Your task to perform on an android device: turn off data saver in the chrome app Image 0: 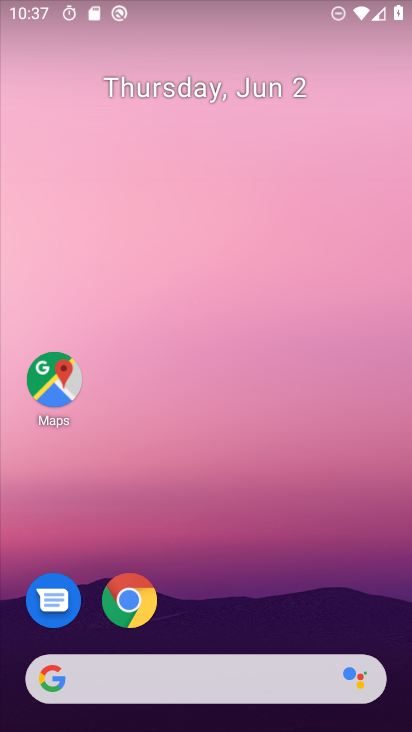
Step 0: click (135, 599)
Your task to perform on an android device: turn off data saver in the chrome app Image 1: 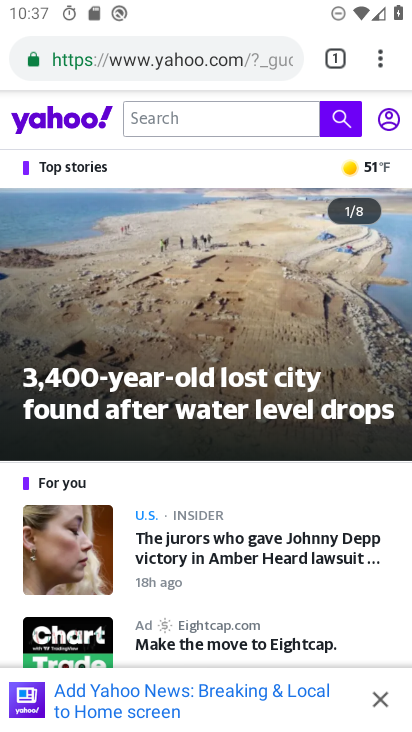
Step 1: click (372, 63)
Your task to perform on an android device: turn off data saver in the chrome app Image 2: 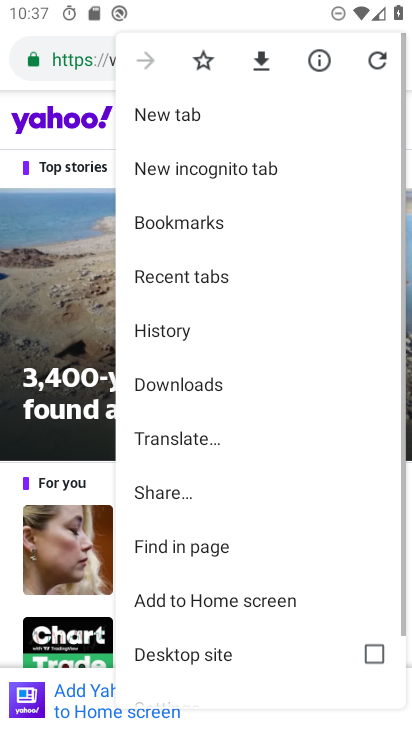
Step 2: drag from (206, 645) to (212, 240)
Your task to perform on an android device: turn off data saver in the chrome app Image 3: 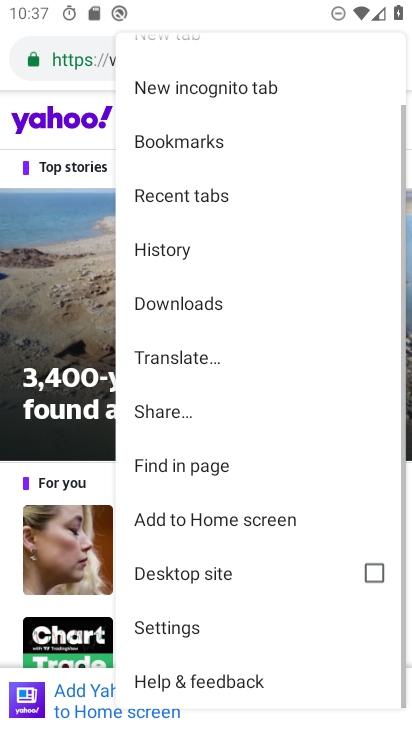
Step 3: click (199, 625)
Your task to perform on an android device: turn off data saver in the chrome app Image 4: 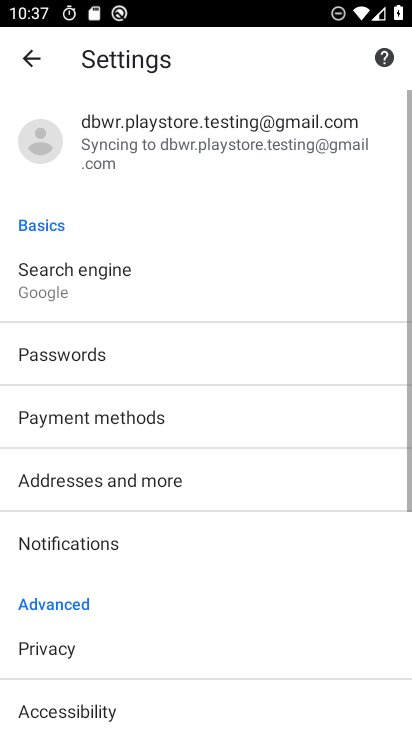
Step 4: drag from (225, 610) to (230, 248)
Your task to perform on an android device: turn off data saver in the chrome app Image 5: 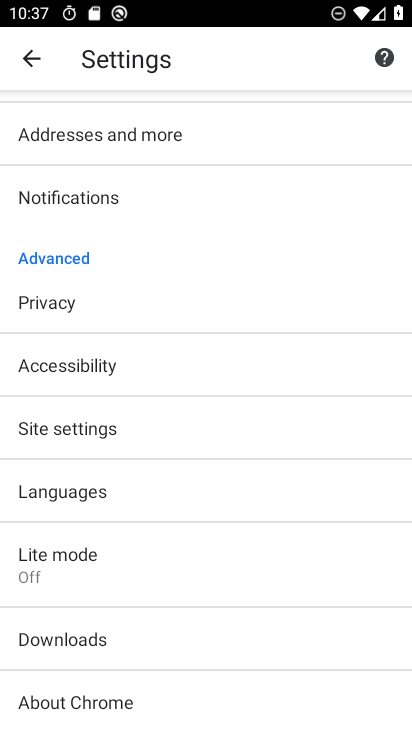
Step 5: click (142, 580)
Your task to perform on an android device: turn off data saver in the chrome app Image 6: 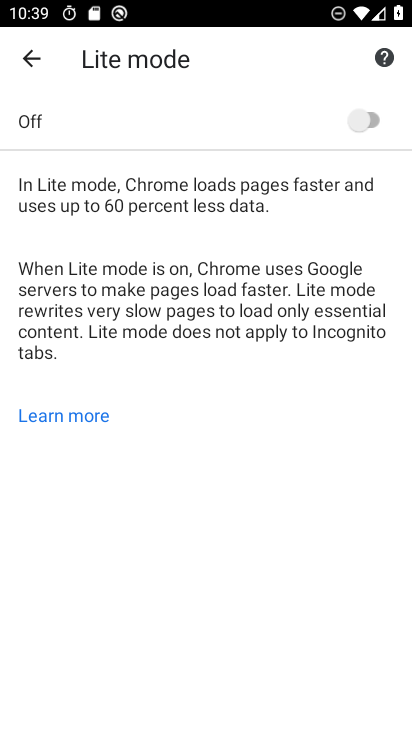
Step 6: task complete